Your task to perform on an android device: toggle notifications settings in the gmail app Image 0: 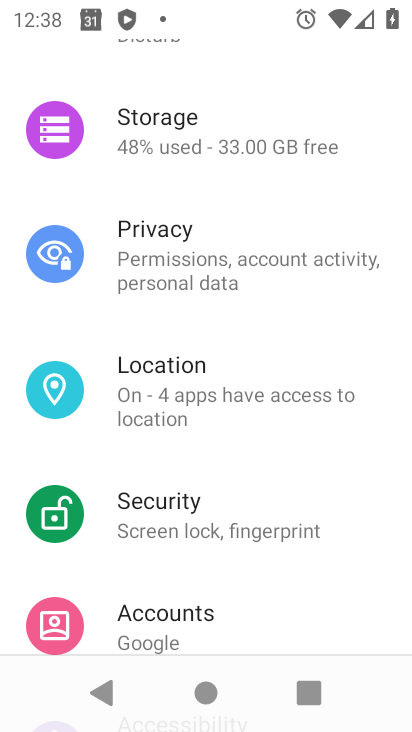
Step 0: drag from (232, 200) to (194, 670)
Your task to perform on an android device: toggle notifications settings in the gmail app Image 1: 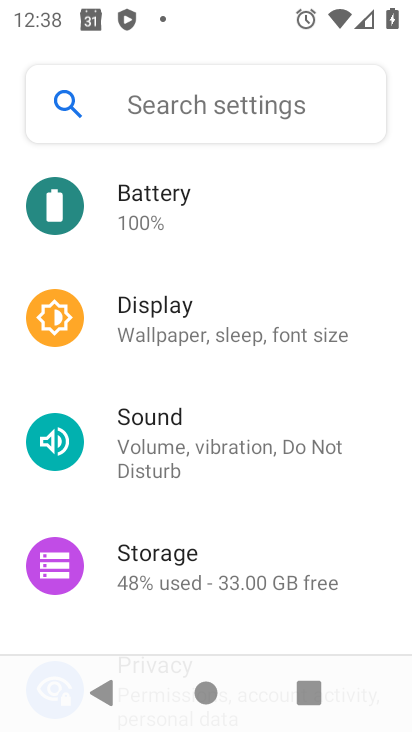
Step 1: drag from (226, 244) to (142, 685)
Your task to perform on an android device: toggle notifications settings in the gmail app Image 2: 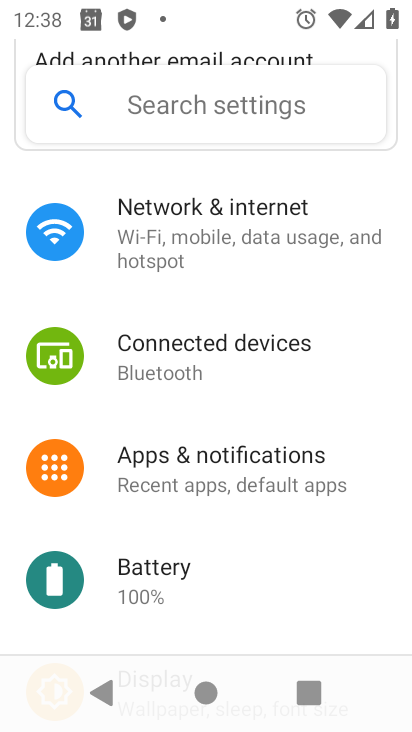
Step 2: press back button
Your task to perform on an android device: toggle notifications settings in the gmail app Image 3: 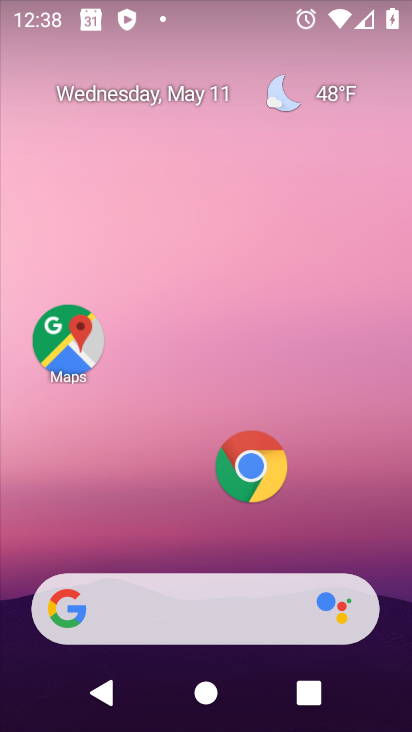
Step 3: drag from (144, 451) to (213, 109)
Your task to perform on an android device: toggle notifications settings in the gmail app Image 4: 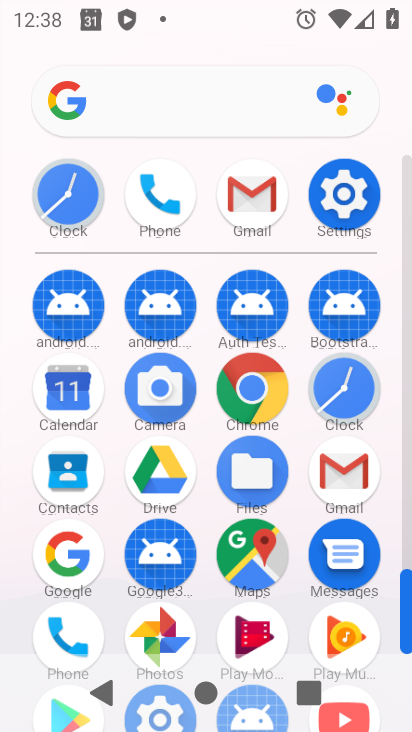
Step 4: click (247, 215)
Your task to perform on an android device: toggle notifications settings in the gmail app Image 5: 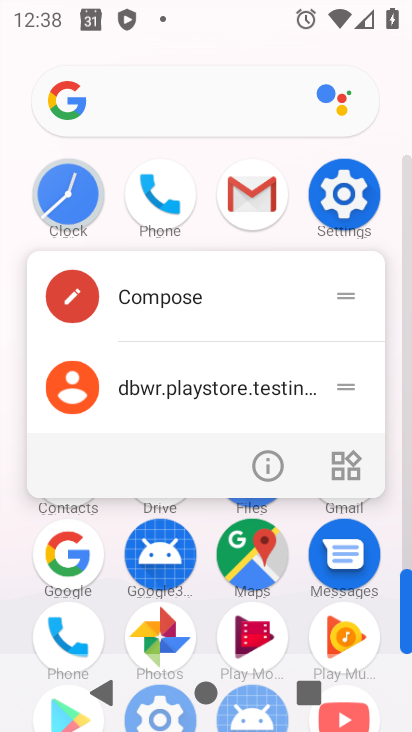
Step 5: click (269, 465)
Your task to perform on an android device: toggle notifications settings in the gmail app Image 6: 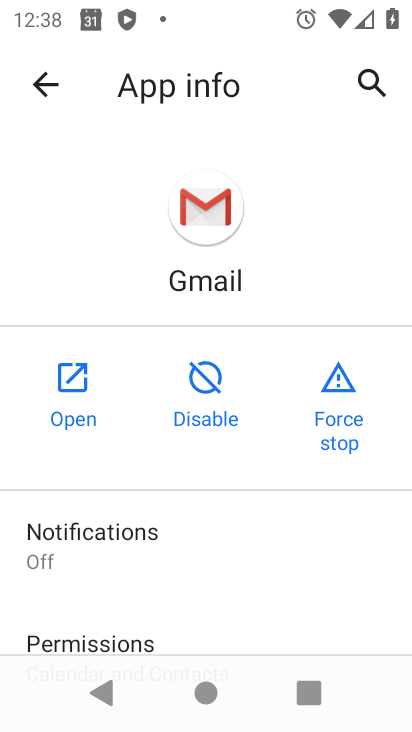
Step 6: click (149, 550)
Your task to perform on an android device: toggle notifications settings in the gmail app Image 7: 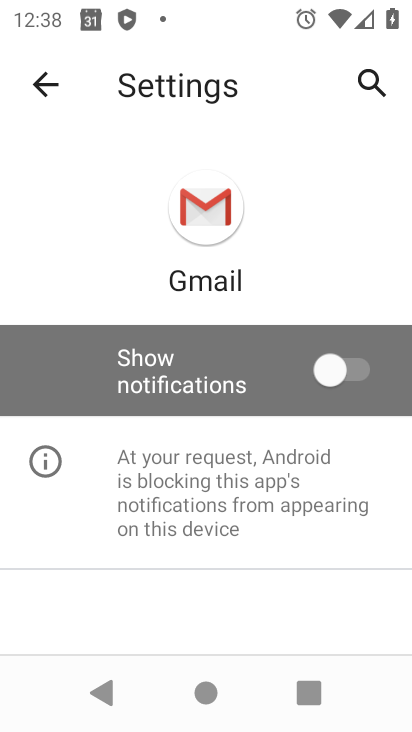
Step 7: click (328, 367)
Your task to perform on an android device: toggle notifications settings in the gmail app Image 8: 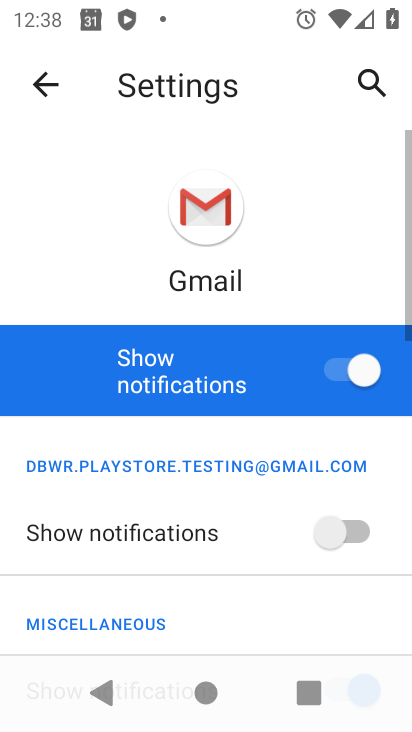
Step 8: task complete